Your task to perform on an android device: Go to Google Image 0: 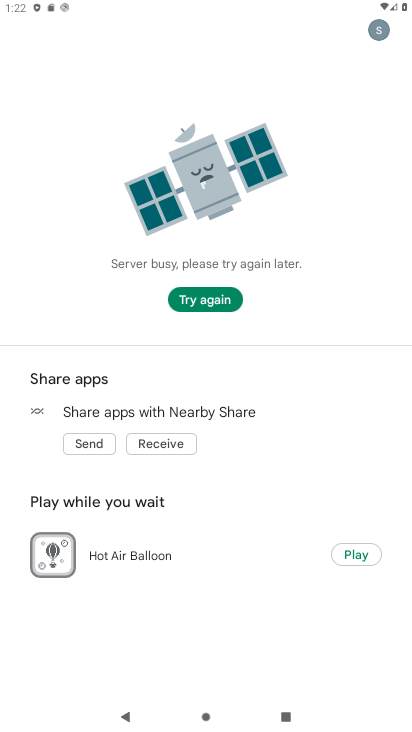
Step 0: press home button
Your task to perform on an android device: Go to Google Image 1: 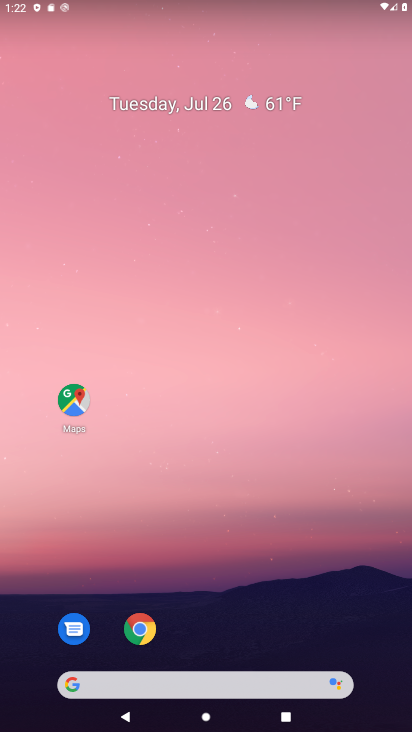
Step 1: click (101, 685)
Your task to perform on an android device: Go to Google Image 2: 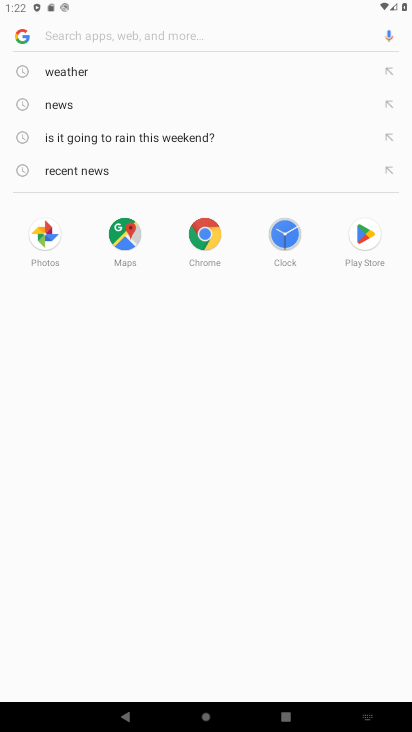
Step 2: task complete